Your task to perform on an android device: change the clock display to analog Image 0: 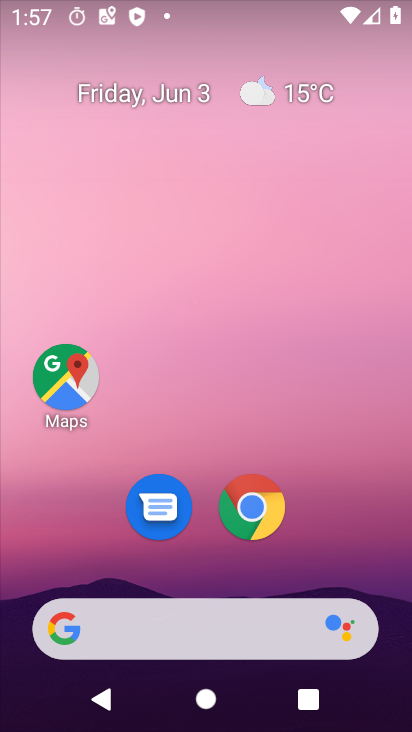
Step 0: drag from (403, 637) to (287, 115)
Your task to perform on an android device: change the clock display to analog Image 1: 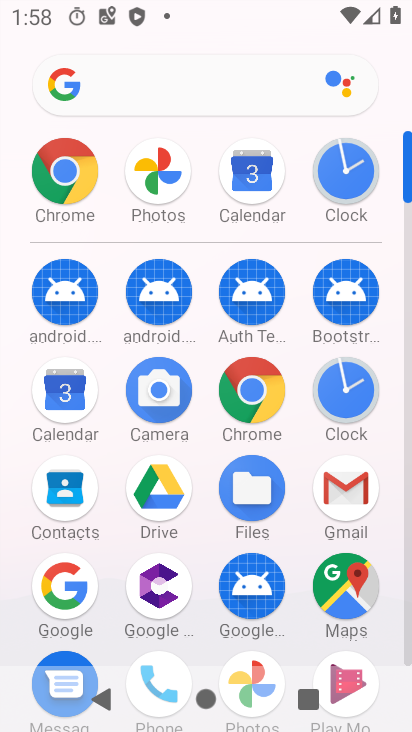
Step 1: click (334, 393)
Your task to perform on an android device: change the clock display to analog Image 2: 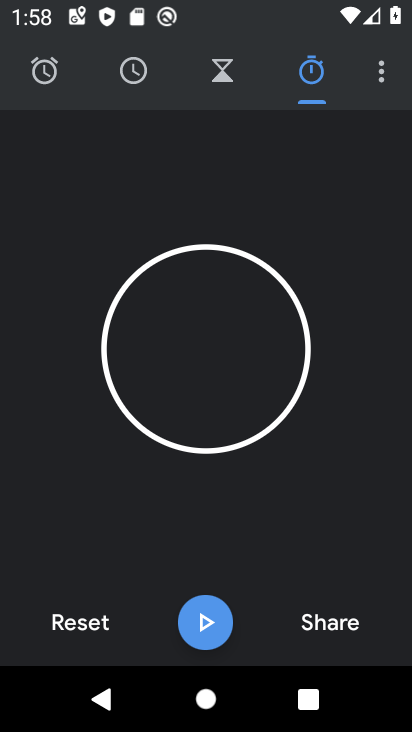
Step 2: click (375, 73)
Your task to perform on an android device: change the clock display to analog Image 3: 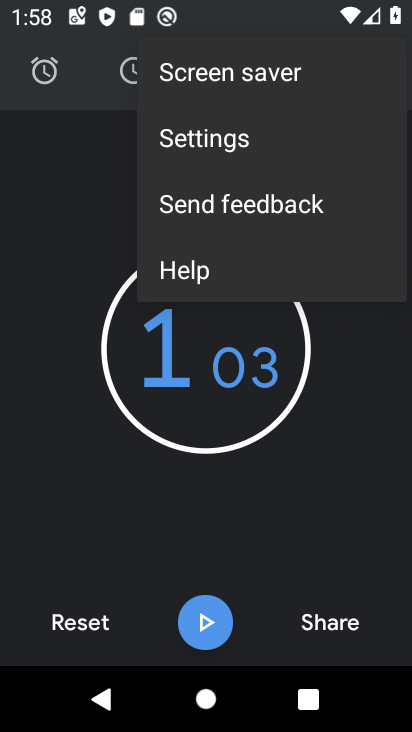
Step 3: click (244, 130)
Your task to perform on an android device: change the clock display to analog Image 4: 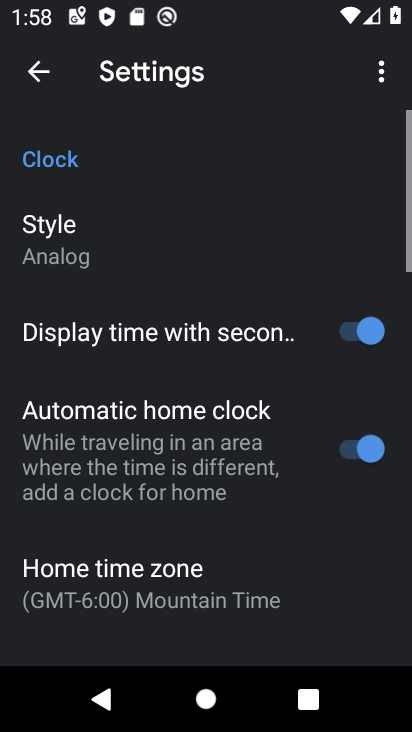
Step 4: click (102, 238)
Your task to perform on an android device: change the clock display to analog Image 5: 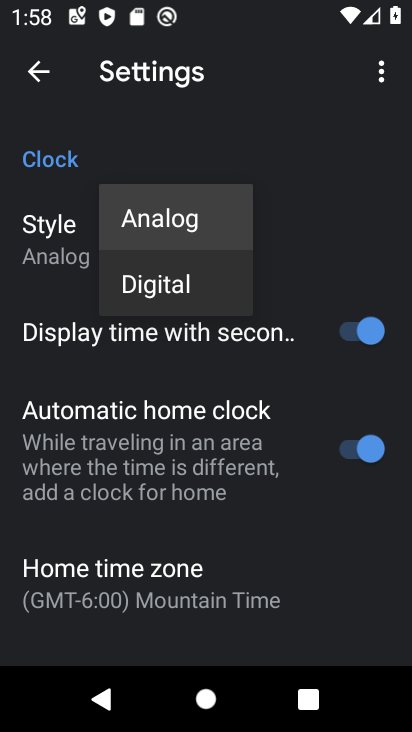
Step 5: click (195, 231)
Your task to perform on an android device: change the clock display to analog Image 6: 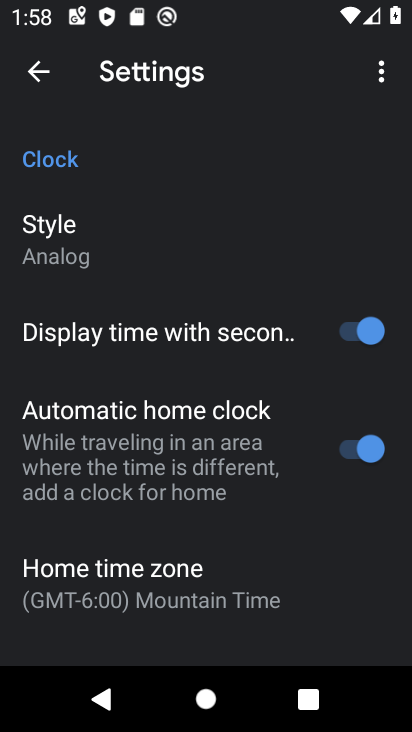
Step 6: task complete